Your task to perform on an android device: Open Google Chrome and open the bookmarks view Image 0: 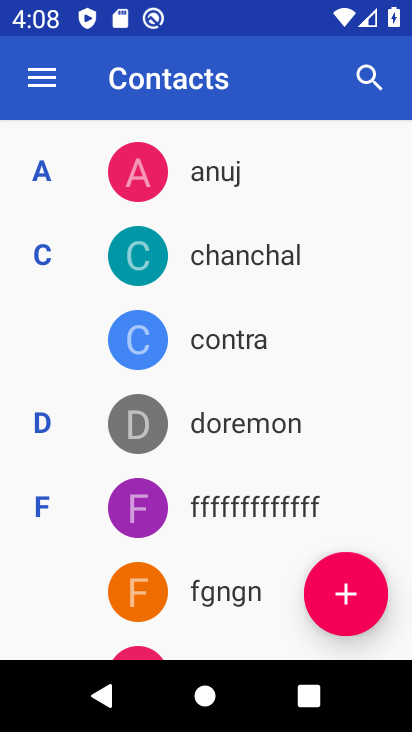
Step 0: press back button
Your task to perform on an android device: Open Google Chrome and open the bookmarks view Image 1: 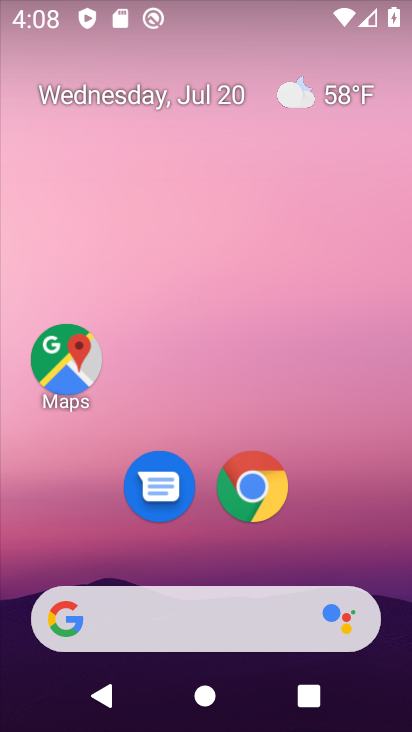
Step 1: click (242, 482)
Your task to perform on an android device: Open Google Chrome and open the bookmarks view Image 2: 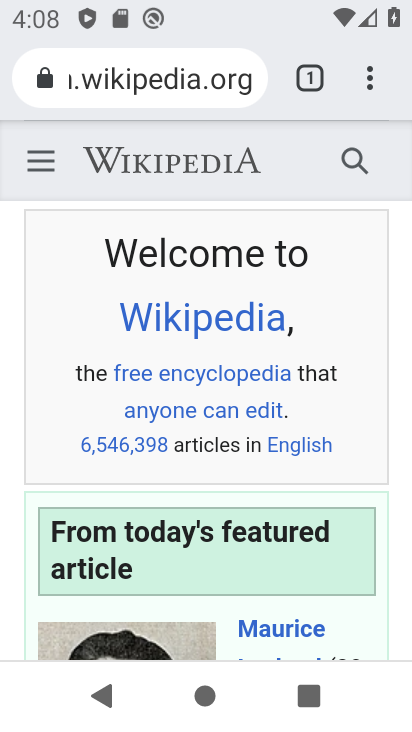
Step 2: task complete